Your task to perform on an android device: Show me popular videos on Youtube Image 0: 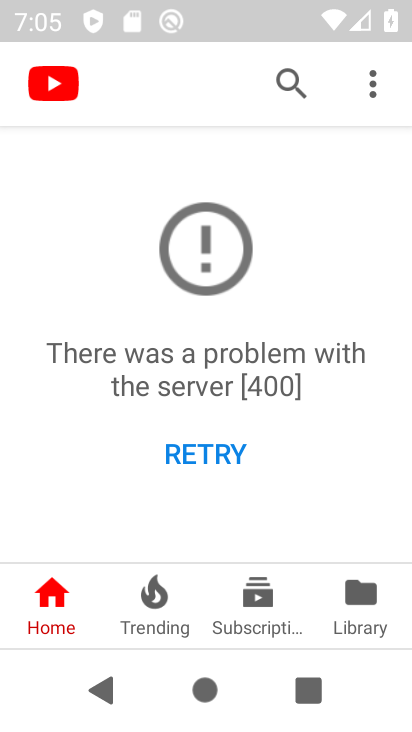
Step 0: task impossible